Your task to perform on an android device: What's the weather? Image 0: 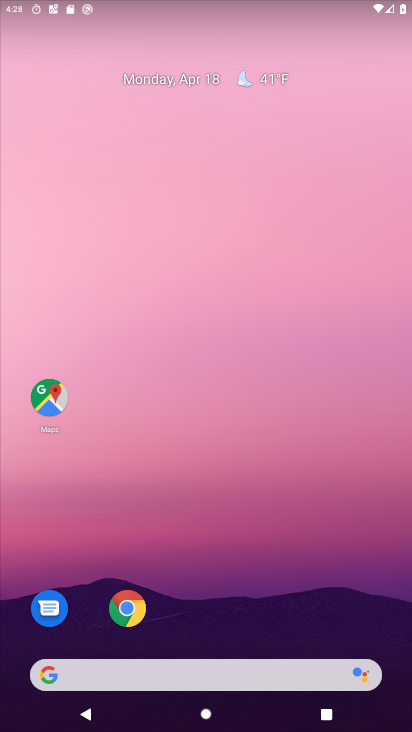
Step 0: task complete